Your task to perform on an android device: toggle airplane mode Image 0: 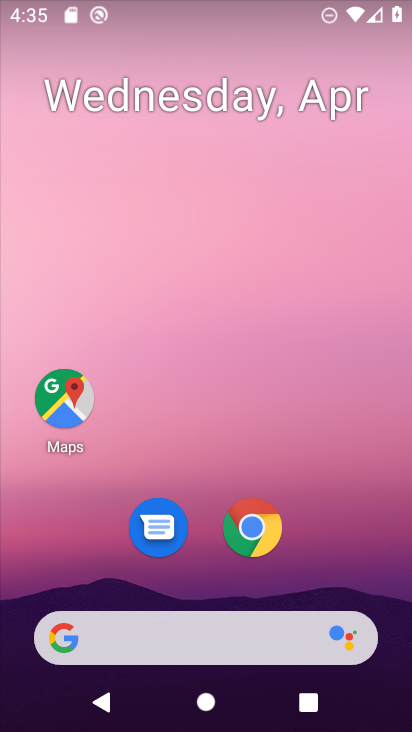
Step 0: drag from (352, 572) to (367, 14)
Your task to perform on an android device: toggle airplane mode Image 1: 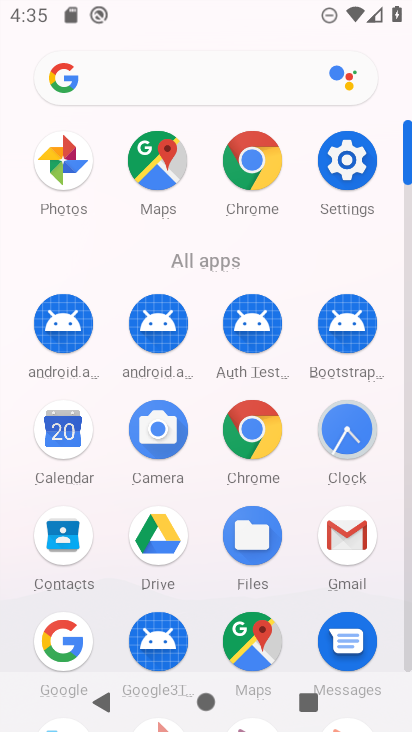
Step 1: click (350, 163)
Your task to perform on an android device: toggle airplane mode Image 2: 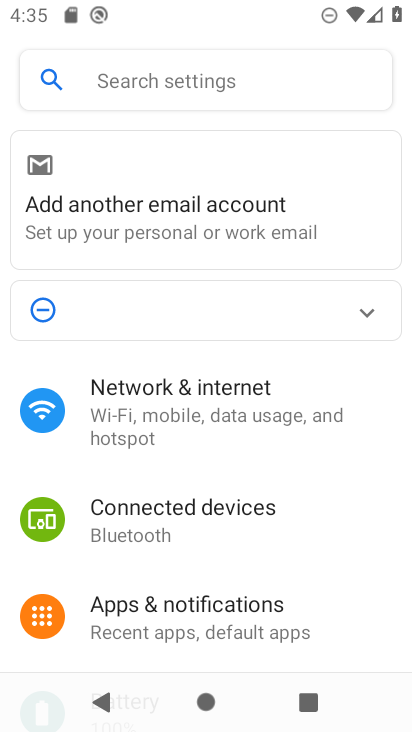
Step 2: click (162, 402)
Your task to perform on an android device: toggle airplane mode Image 3: 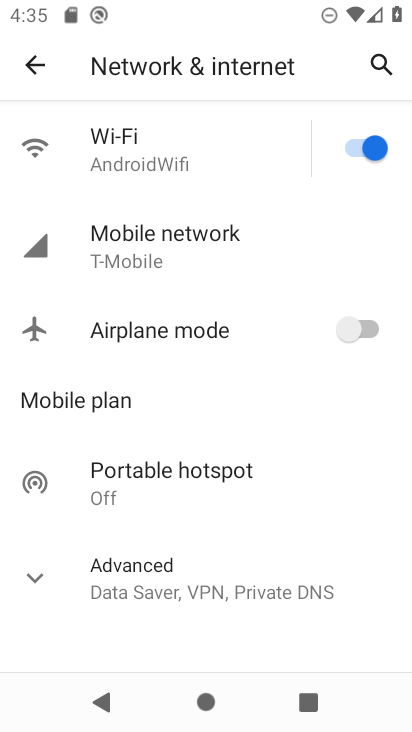
Step 3: click (340, 330)
Your task to perform on an android device: toggle airplane mode Image 4: 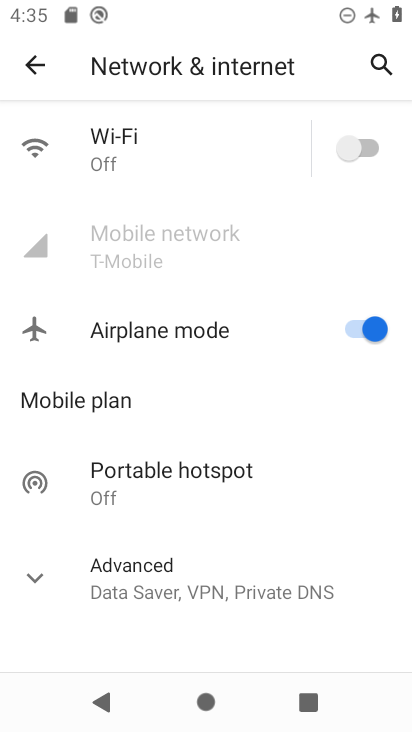
Step 4: task complete